Your task to perform on an android device: allow notifications from all sites in the chrome app Image 0: 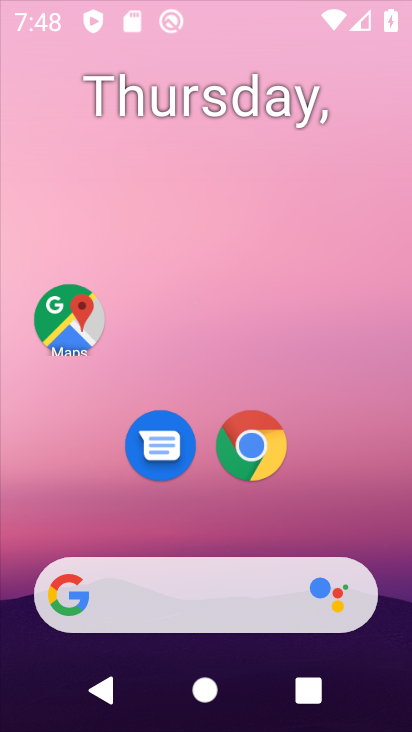
Step 0: drag from (188, 532) to (231, 256)
Your task to perform on an android device: allow notifications from all sites in the chrome app Image 1: 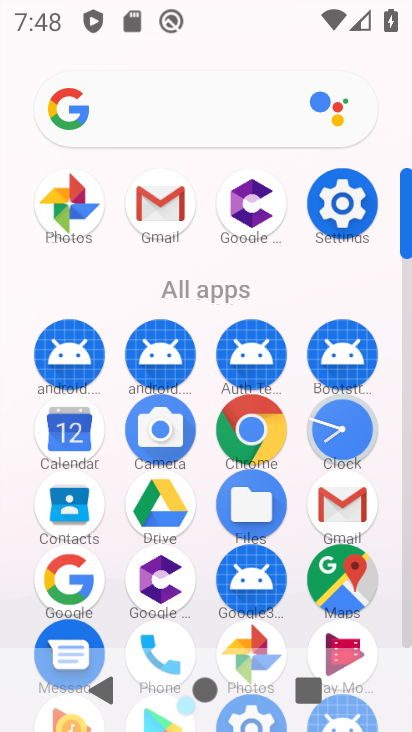
Step 1: drag from (200, 623) to (233, 253)
Your task to perform on an android device: allow notifications from all sites in the chrome app Image 2: 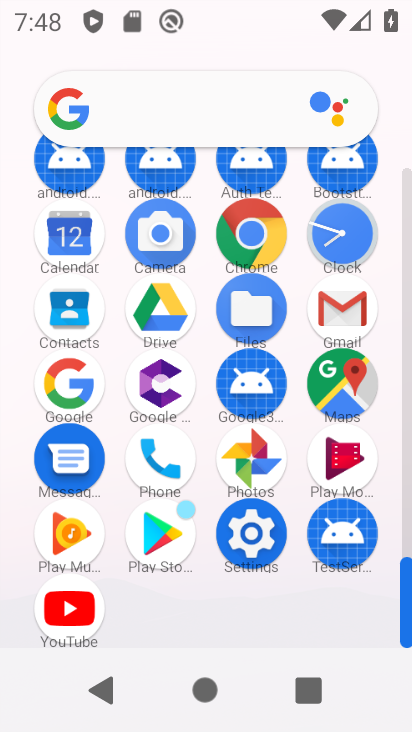
Step 2: click (252, 237)
Your task to perform on an android device: allow notifications from all sites in the chrome app Image 3: 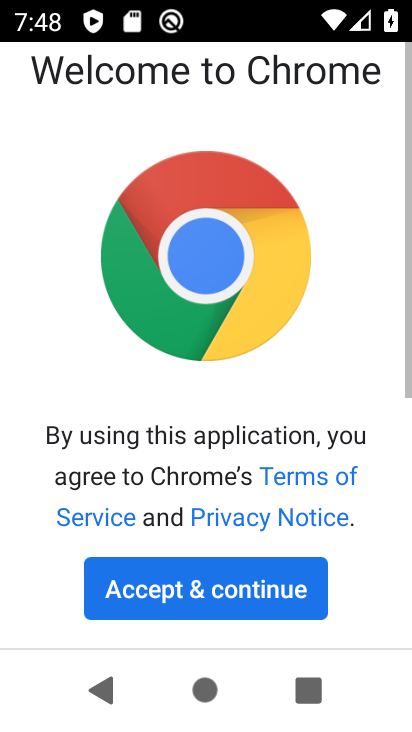
Step 3: click (174, 592)
Your task to perform on an android device: allow notifications from all sites in the chrome app Image 4: 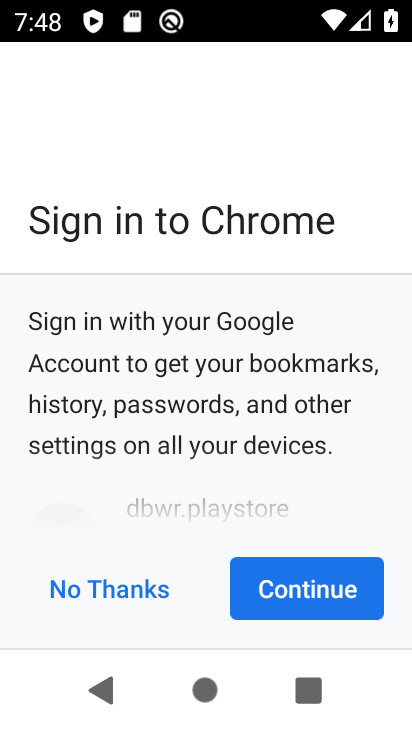
Step 4: click (103, 591)
Your task to perform on an android device: allow notifications from all sites in the chrome app Image 5: 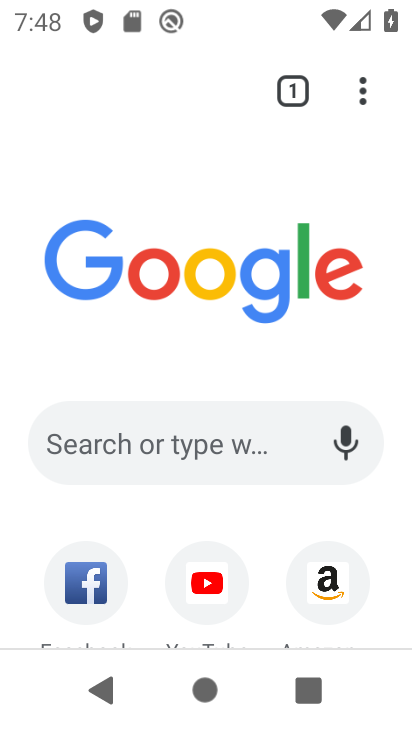
Step 5: drag from (367, 90) to (187, 473)
Your task to perform on an android device: allow notifications from all sites in the chrome app Image 6: 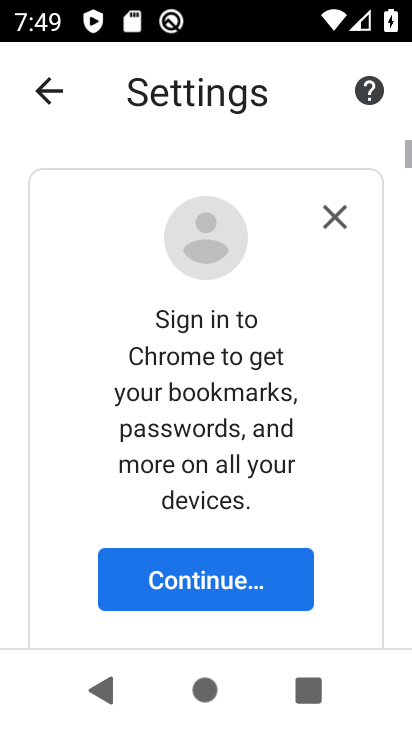
Step 6: drag from (182, 461) to (349, 136)
Your task to perform on an android device: allow notifications from all sites in the chrome app Image 7: 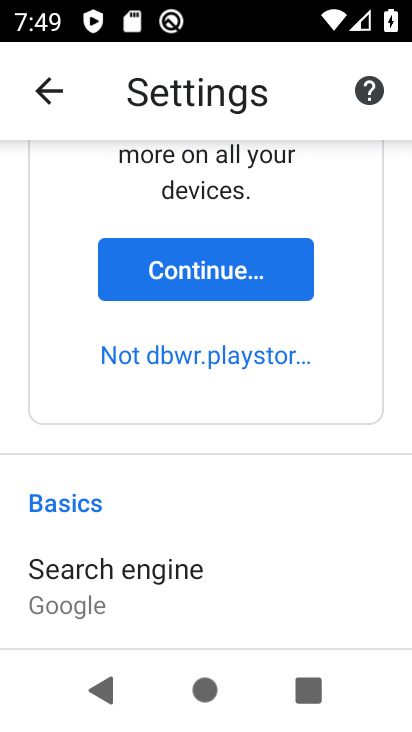
Step 7: drag from (307, 201) to (322, 681)
Your task to perform on an android device: allow notifications from all sites in the chrome app Image 8: 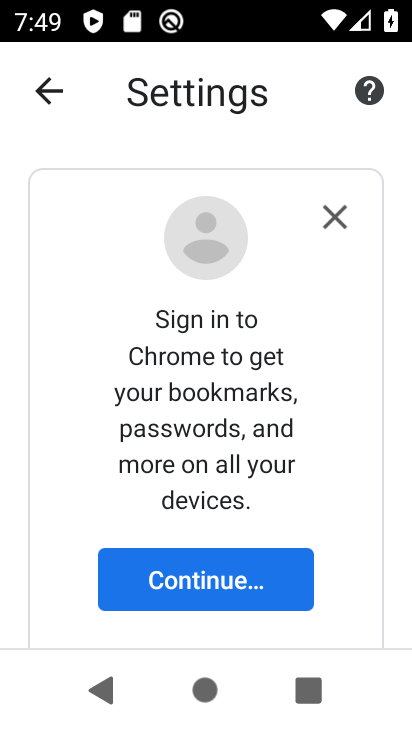
Step 8: click (345, 208)
Your task to perform on an android device: allow notifications from all sites in the chrome app Image 9: 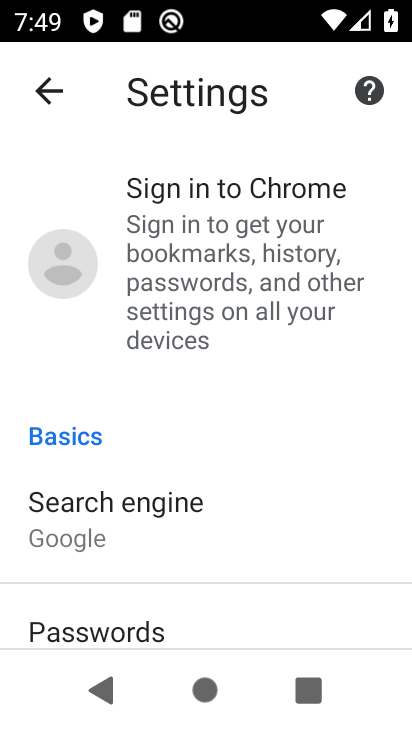
Step 9: drag from (224, 538) to (243, 265)
Your task to perform on an android device: allow notifications from all sites in the chrome app Image 10: 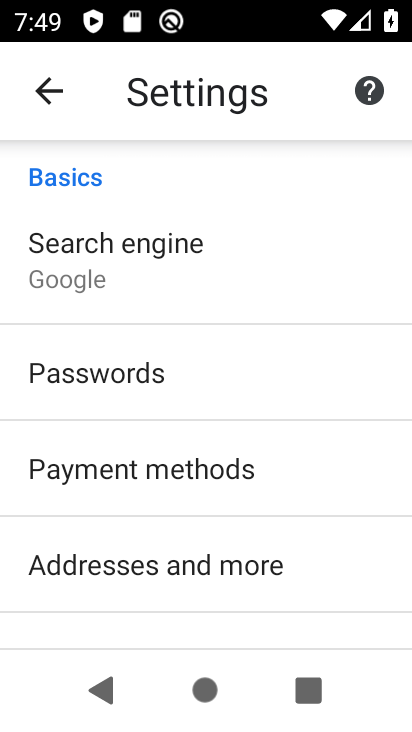
Step 10: drag from (223, 534) to (221, 248)
Your task to perform on an android device: allow notifications from all sites in the chrome app Image 11: 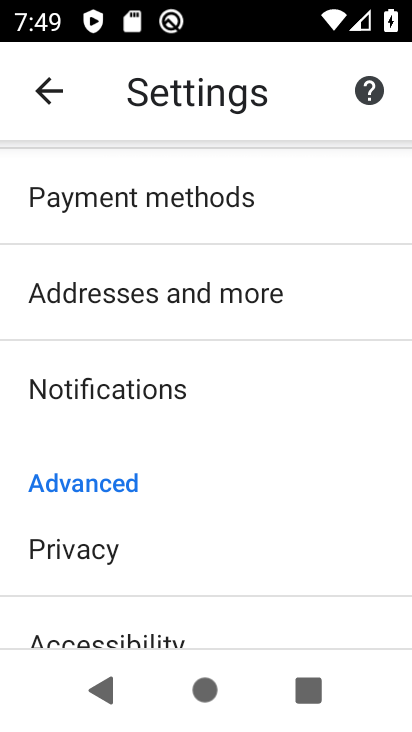
Step 11: click (167, 389)
Your task to perform on an android device: allow notifications from all sites in the chrome app Image 12: 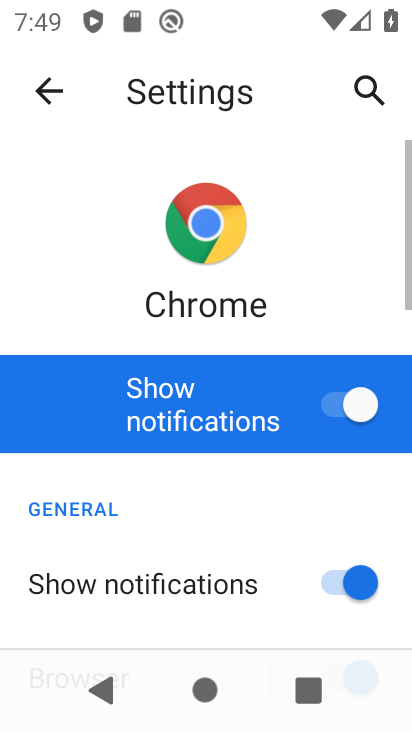
Step 12: click (258, 295)
Your task to perform on an android device: allow notifications from all sites in the chrome app Image 13: 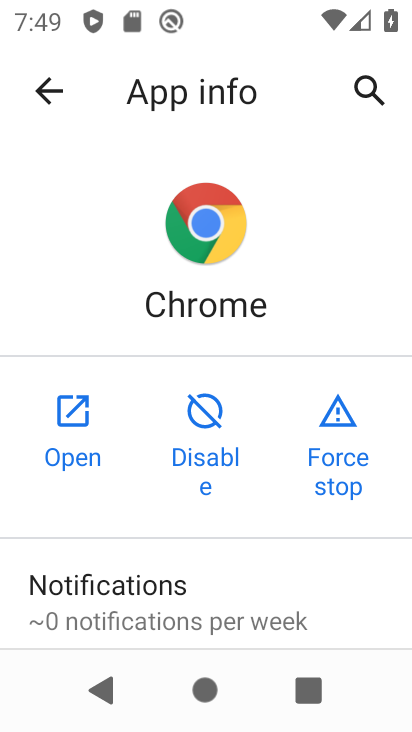
Step 13: click (87, 421)
Your task to perform on an android device: allow notifications from all sites in the chrome app Image 14: 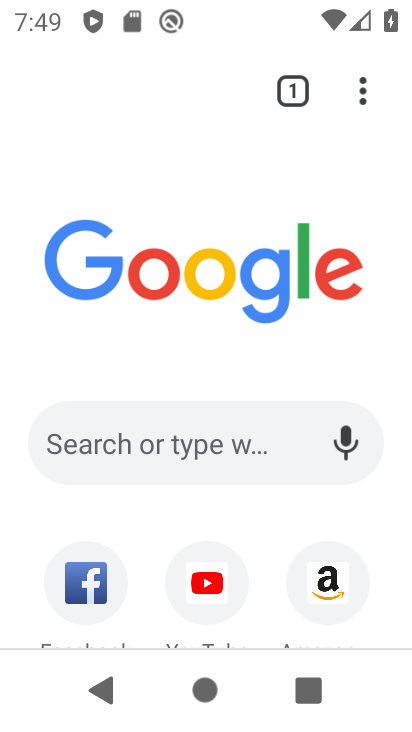
Step 14: drag from (365, 76) to (166, 474)
Your task to perform on an android device: allow notifications from all sites in the chrome app Image 15: 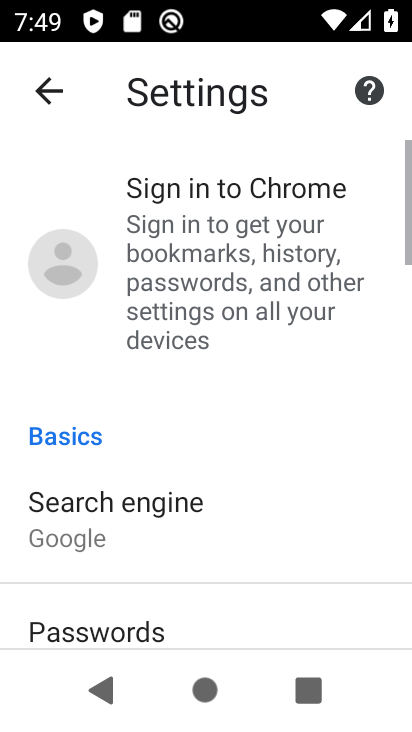
Step 15: drag from (175, 503) to (275, 139)
Your task to perform on an android device: allow notifications from all sites in the chrome app Image 16: 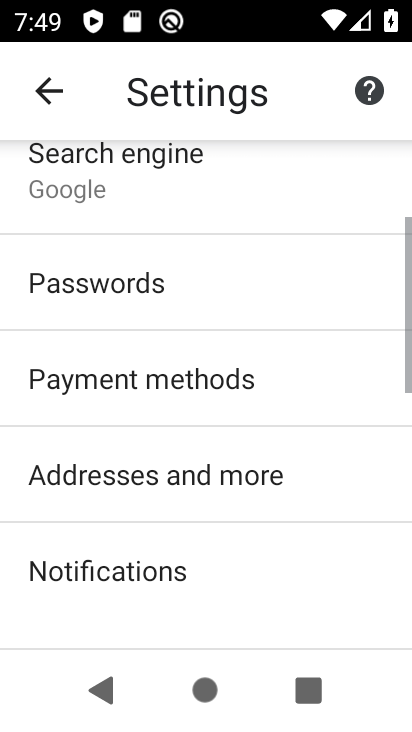
Step 16: drag from (165, 541) to (244, 246)
Your task to perform on an android device: allow notifications from all sites in the chrome app Image 17: 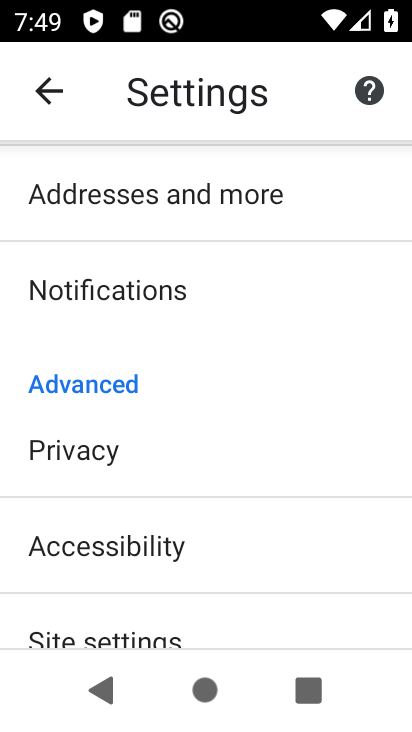
Step 17: click (167, 262)
Your task to perform on an android device: allow notifications from all sites in the chrome app Image 18: 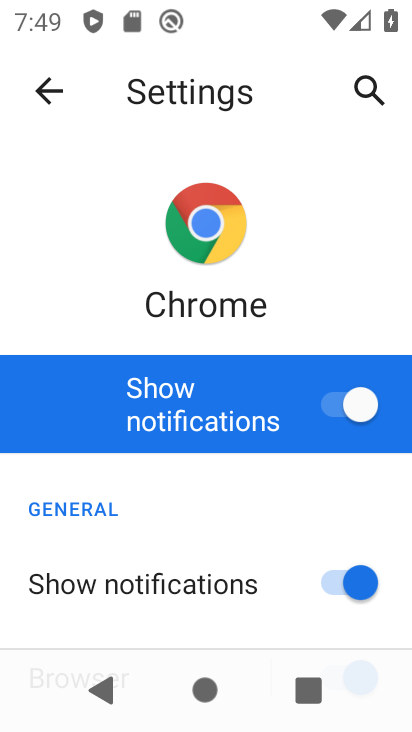
Step 18: task complete